Your task to perform on an android device: Turn off the flashlight Image 0: 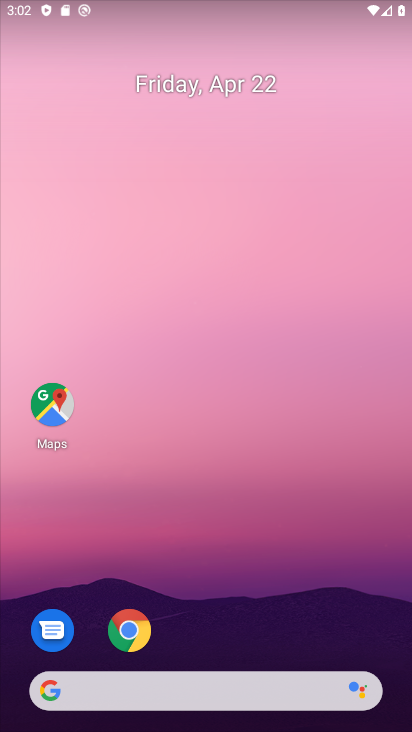
Step 0: drag from (202, 638) to (318, 11)
Your task to perform on an android device: Turn off the flashlight Image 1: 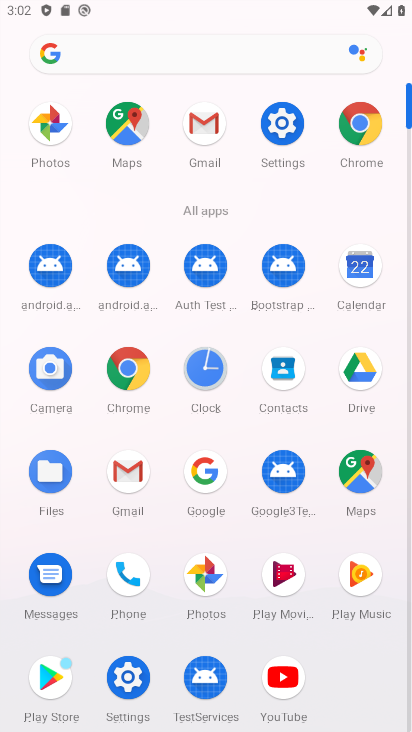
Step 1: click (292, 187)
Your task to perform on an android device: Turn off the flashlight Image 2: 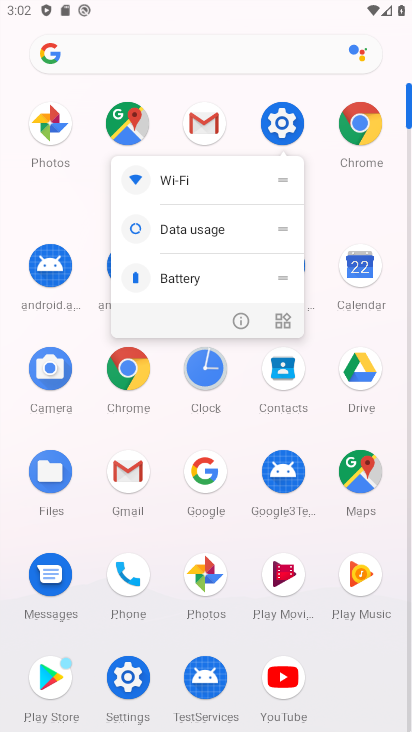
Step 2: click (296, 134)
Your task to perform on an android device: Turn off the flashlight Image 3: 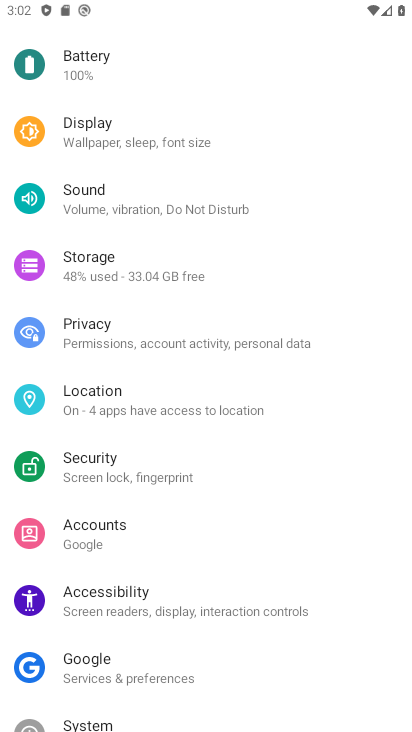
Step 3: drag from (203, 194) to (152, 517)
Your task to perform on an android device: Turn off the flashlight Image 4: 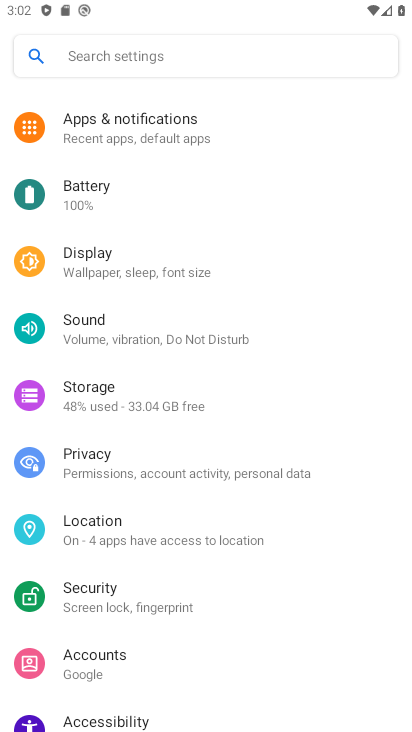
Step 4: click (206, 49)
Your task to perform on an android device: Turn off the flashlight Image 5: 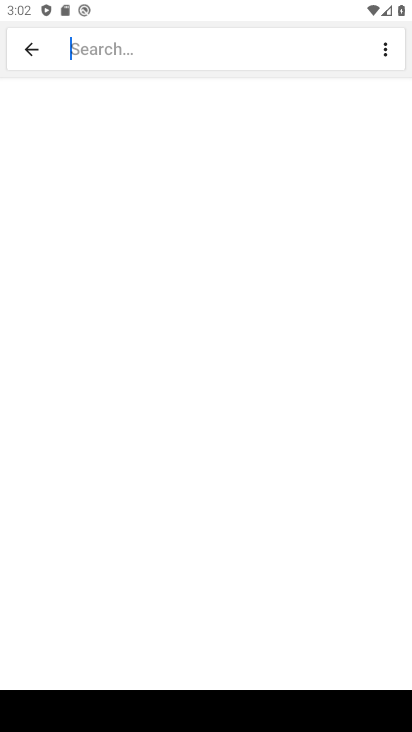
Step 5: type "flashlight"
Your task to perform on an android device: Turn off the flashlight Image 6: 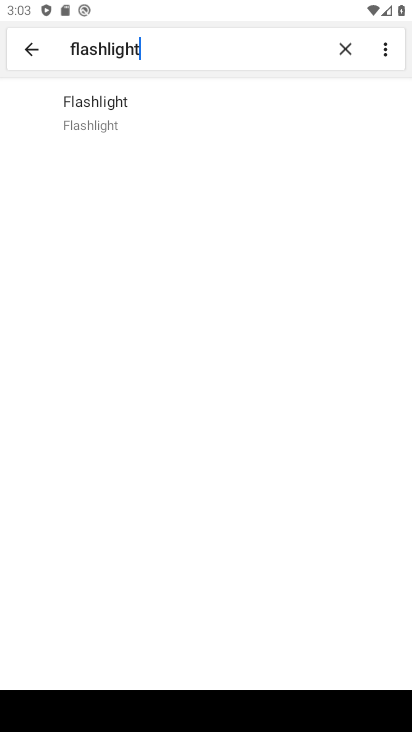
Step 6: click (105, 125)
Your task to perform on an android device: Turn off the flashlight Image 7: 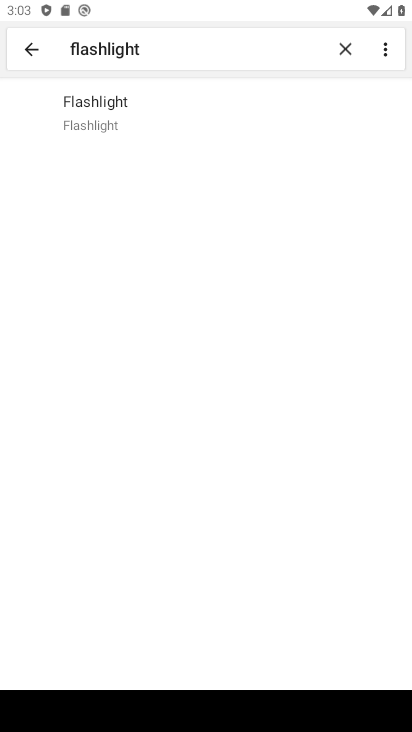
Step 7: click (109, 123)
Your task to perform on an android device: Turn off the flashlight Image 8: 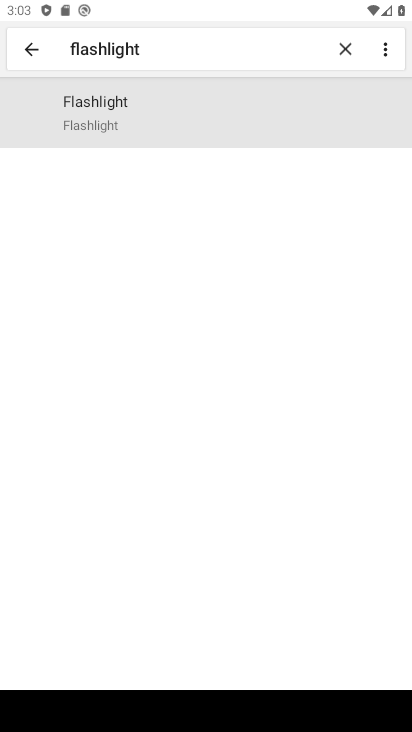
Step 8: click (110, 123)
Your task to perform on an android device: Turn off the flashlight Image 9: 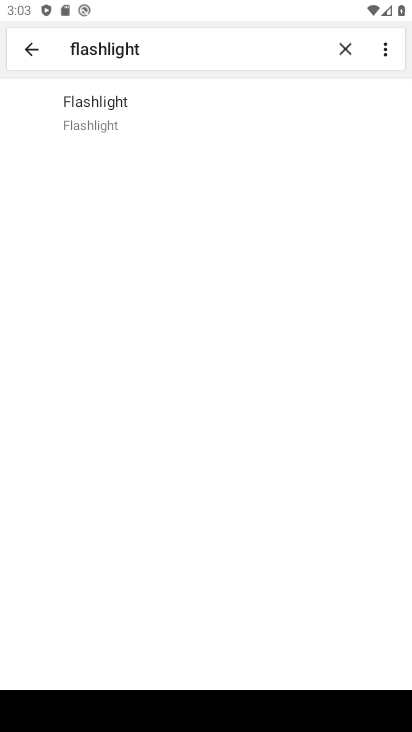
Step 9: task complete